Your task to perform on an android device: open chrome and create a bookmark for the current page Image 0: 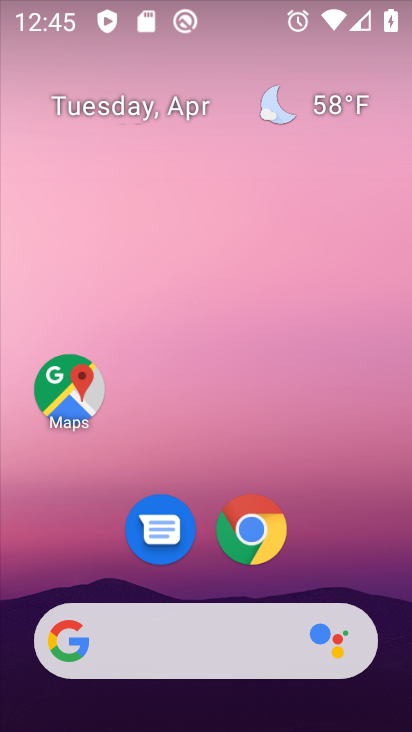
Step 0: click (243, 554)
Your task to perform on an android device: open chrome and create a bookmark for the current page Image 1: 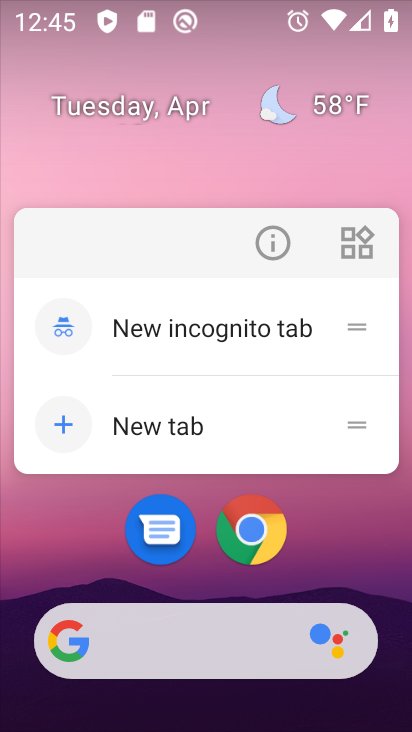
Step 1: click (243, 554)
Your task to perform on an android device: open chrome and create a bookmark for the current page Image 2: 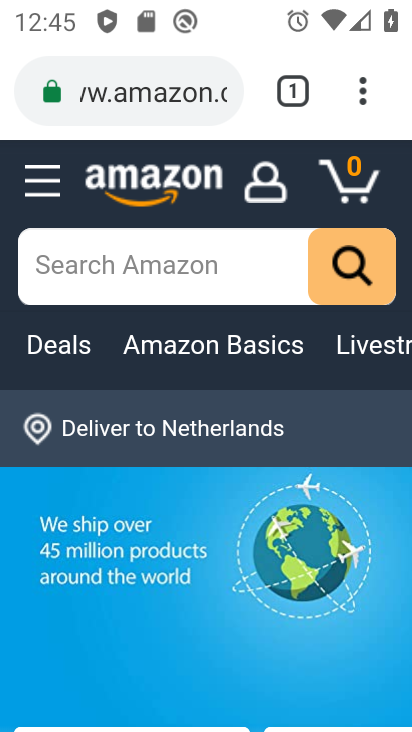
Step 2: press back button
Your task to perform on an android device: open chrome and create a bookmark for the current page Image 3: 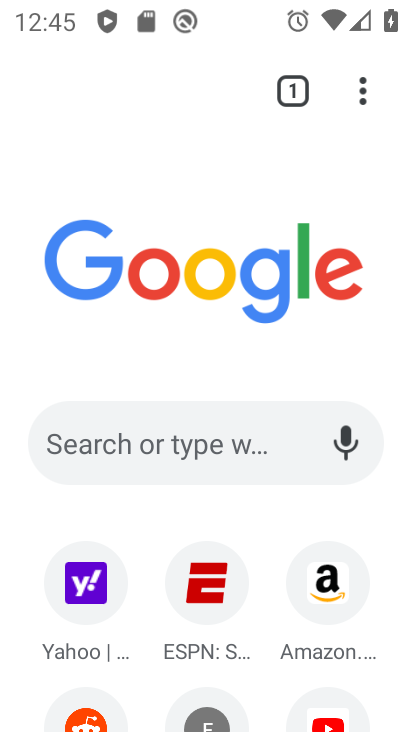
Step 3: drag from (264, 688) to (275, 178)
Your task to perform on an android device: open chrome and create a bookmark for the current page Image 4: 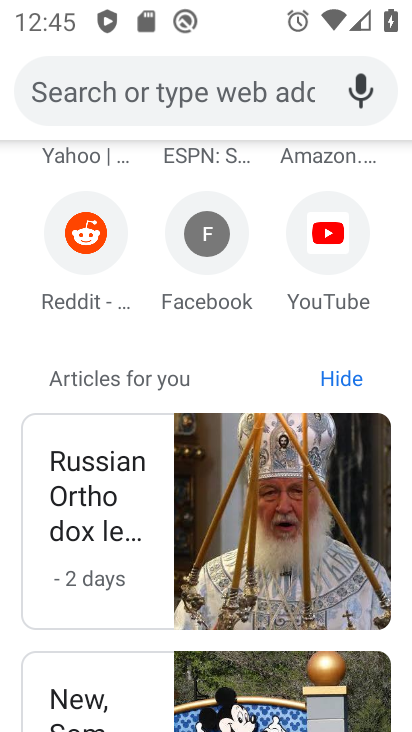
Step 4: drag from (155, 631) to (186, 285)
Your task to perform on an android device: open chrome and create a bookmark for the current page Image 5: 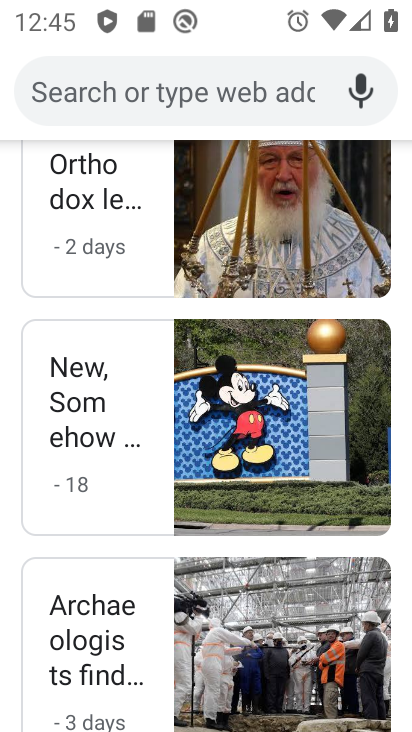
Step 5: click (134, 367)
Your task to perform on an android device: open chrome and create a bookmark for the current page Image 6: 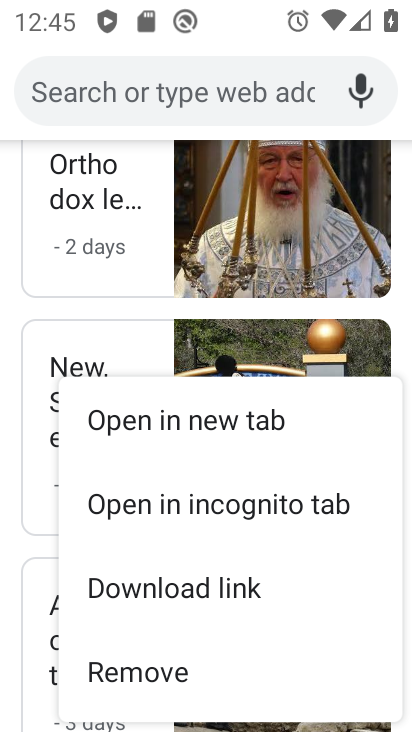
Step 6: click (78, 292)
Your task to perform on an android device: open chrome and create a bookmark for the current page Image 7: 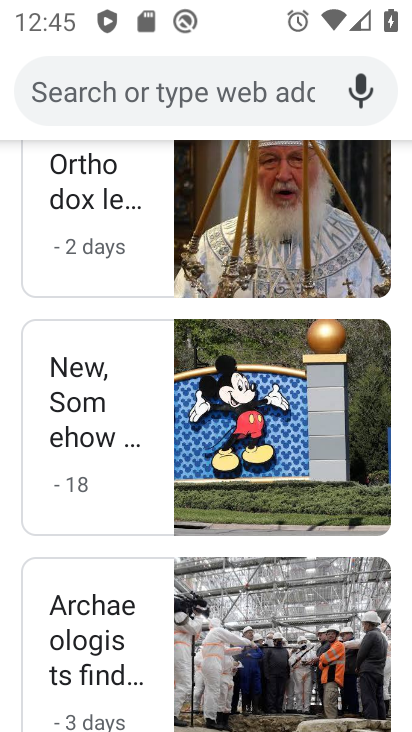
Step 7: click (92, 329)
Your task to perform on an android device: open chrome and create a bookmark for the current page Image 8: 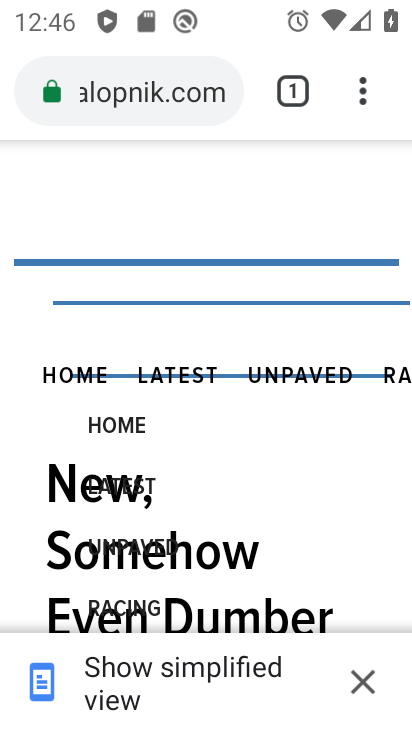
Step 8: click (355, 86)
Your task to perform on an android device: open chrome and create a bookmark for the current page Image 9: 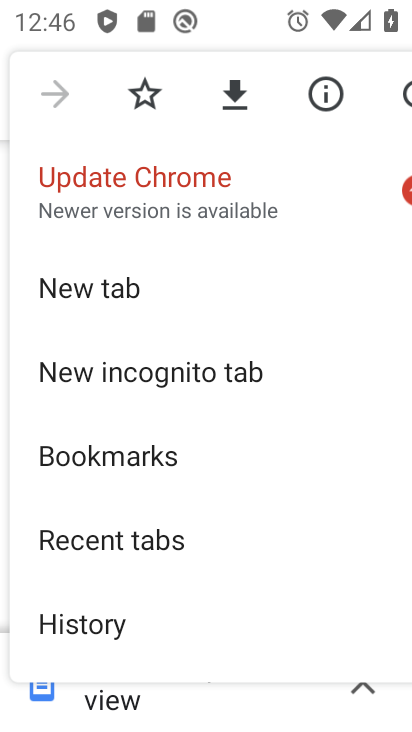
Step 9: click (142, 101)
Your task to perform on an android device: open chrome and create a bookmark for the current page Image 10: 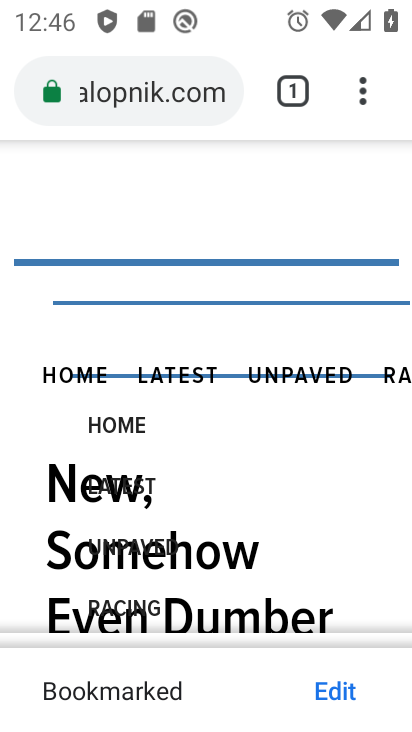
Step 10: task complete